Your task to perform on an android device: open app "Google Translate" (install if not already installed) Image 0: 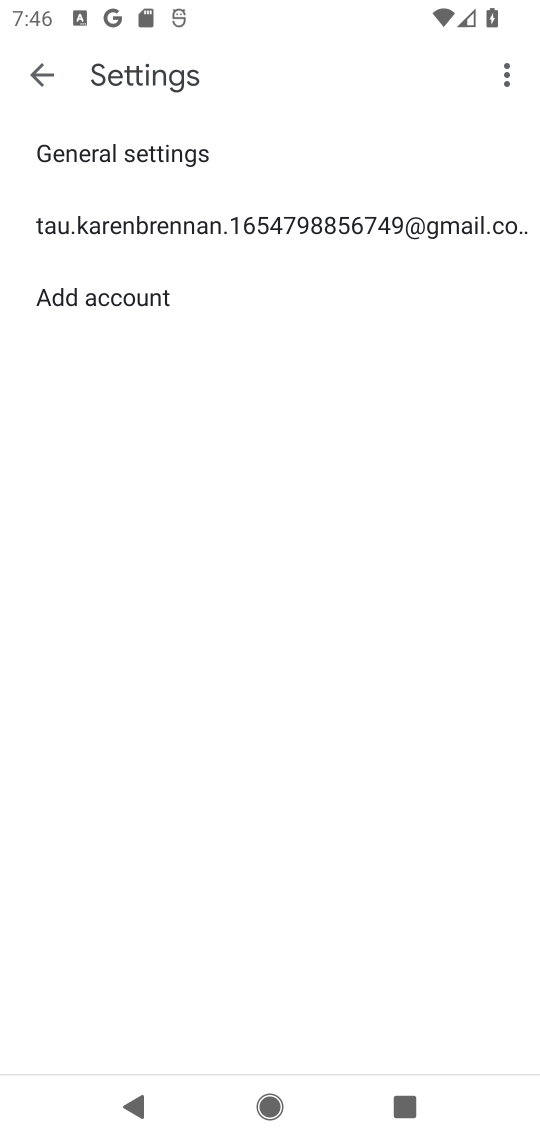
Step 0: press home button
Your task to perform on an android device: open app "Google Translate" (install if not already installed) Image 1: 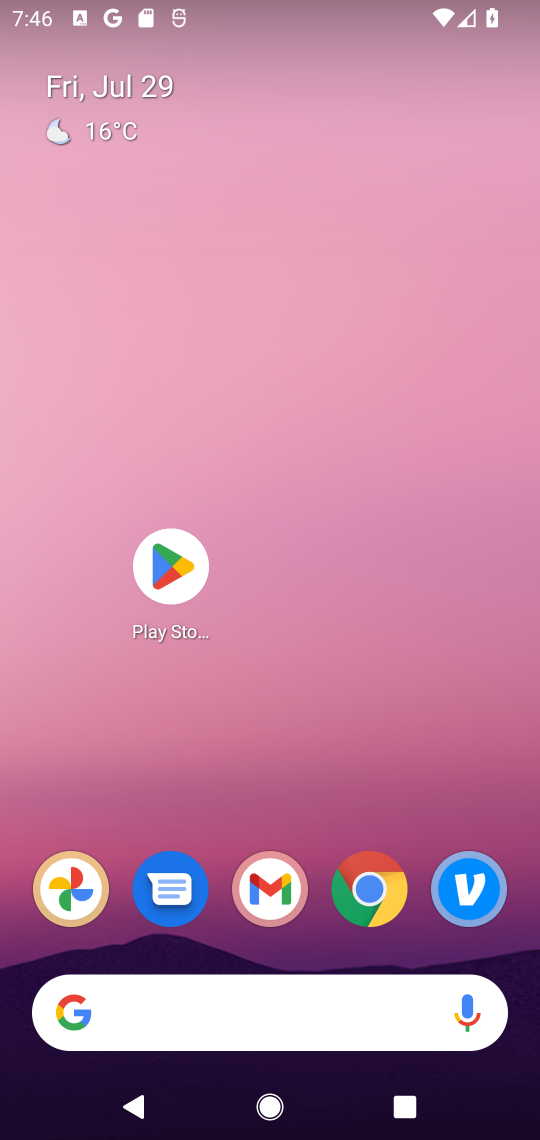
Step 1: click (178, 566)
Your task to perform on an android device: open app "Google Translate" (install if not already installed) Image 2: 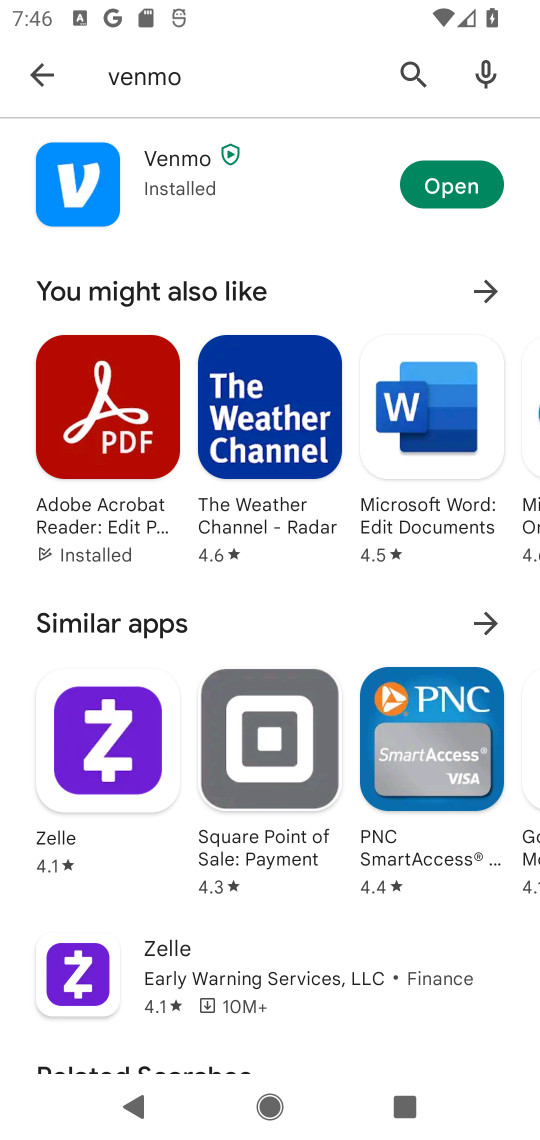
Step 2: click (412, 63)
Your task to perform on an android device: open app "Google Translate" (install if not already installed) Image 3: 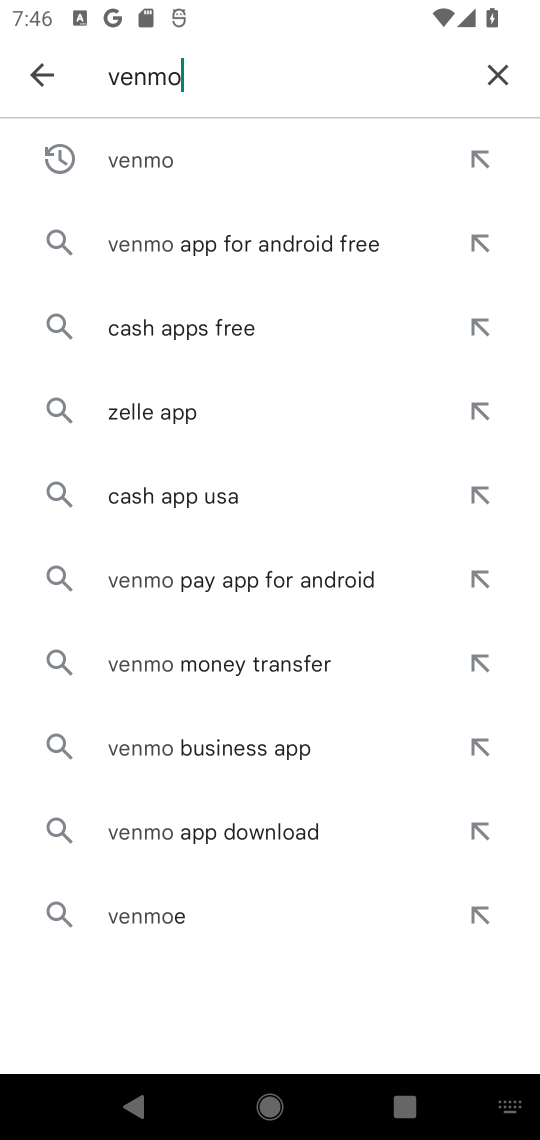
Step 3: click (496, 75)
Your task to perform on an android device: open app "Google Translate" (install if not already installed) Image 4: 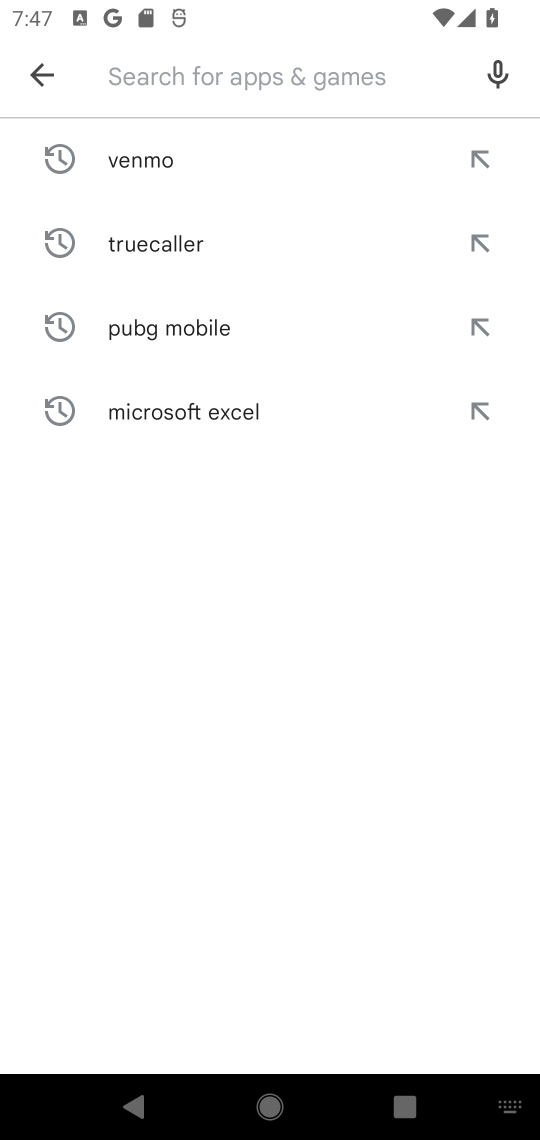
Step 4: type "Google Translate"
Your task to perform on an android device: open app "Google Translate" (install if not already installed) Image 5: 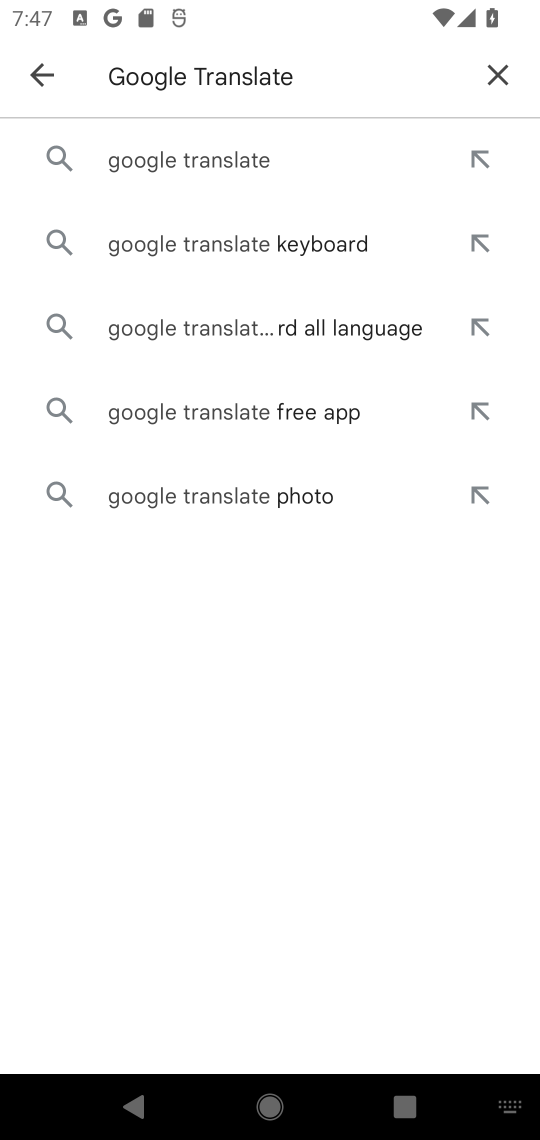
Step 5: click (234, 154)
Your task to perform on an android device: open app "Google Translate" (install if not already installed) Image 6: 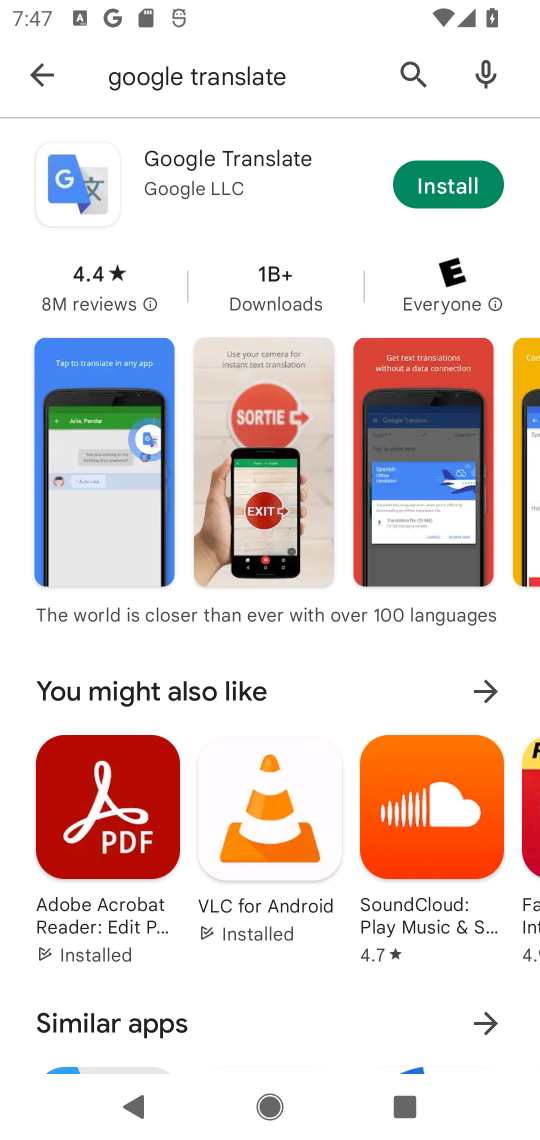
Step 6: click (453, 171)
Your task to perform on an android device: open app "Google Translate" (install if not already installed) Image 7: 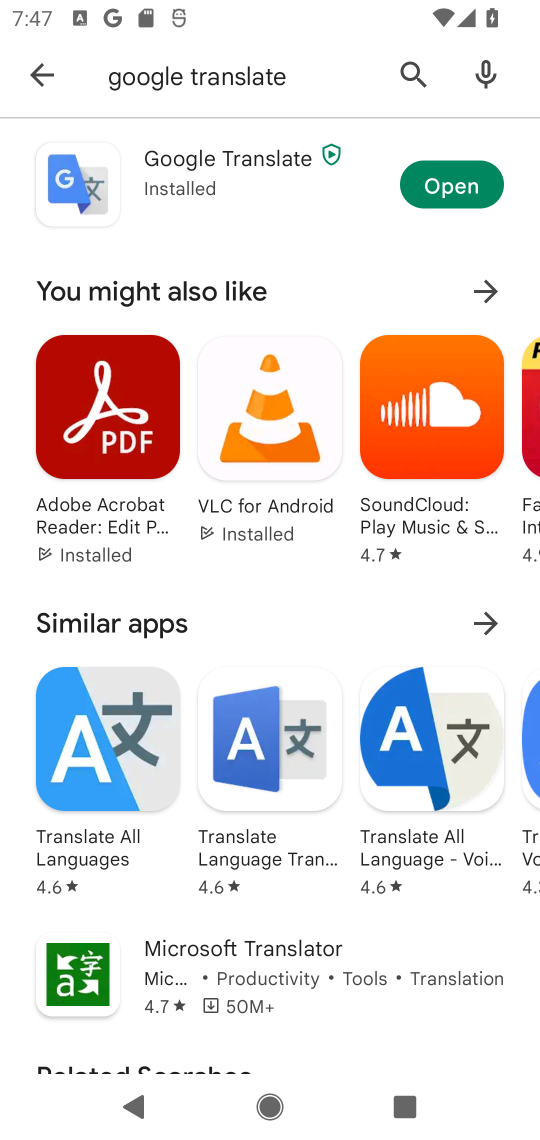
Step 7: click (450, 192)
Your task to perform on an android device: open app "Google Translate" (install if not already installed) Image 8: 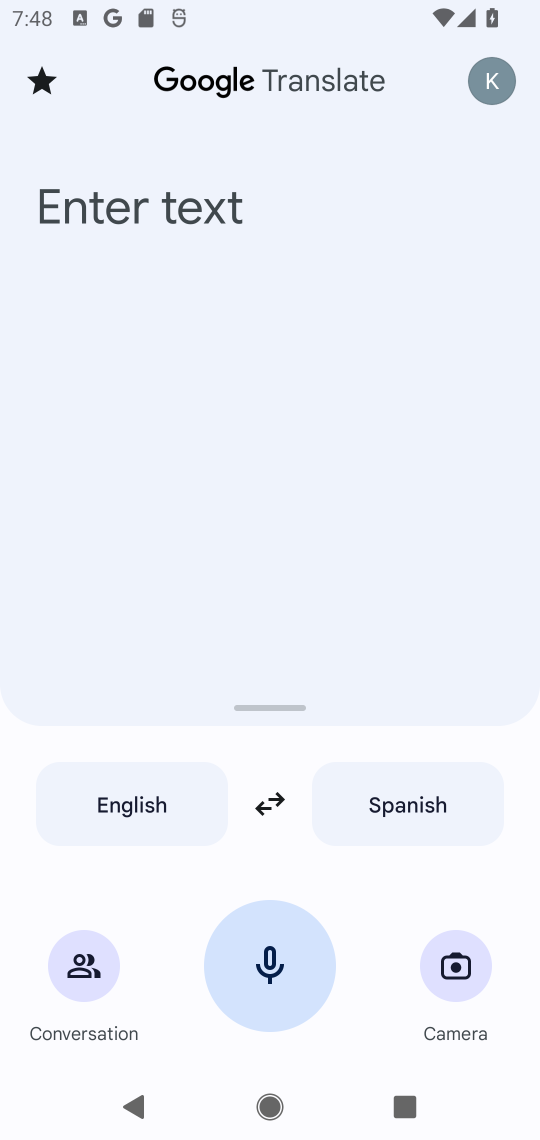
Step 8: task complete